Your task to perform on an android device: toggle priority inbox in the gmail app Image 0: 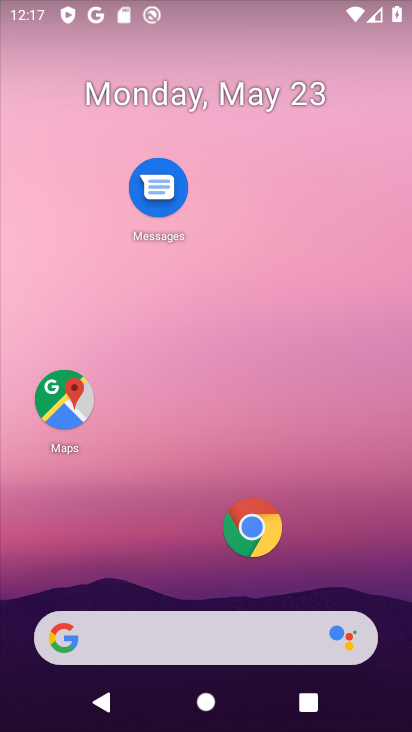
Step 0: drag from (267, 491) to (115, 103)
Your task to perform on an android device: toggle priority inbox in the gmail app Image 1: 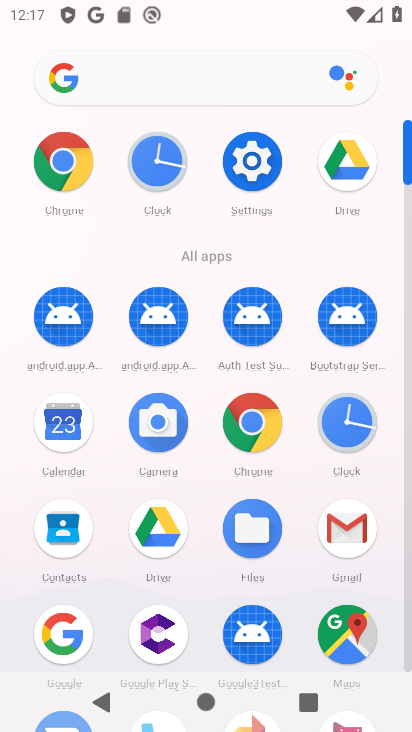
Step 1: click (282, 232)
Your task to perform on an android device: toggle priority inbox in the gmail app Image 2: 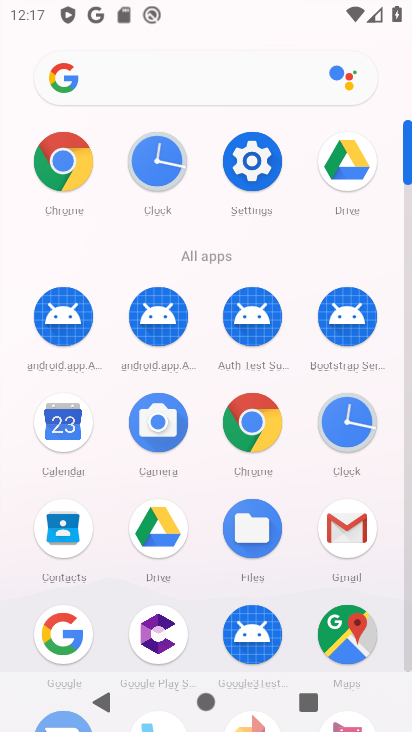
Step 2: click (359, 521)
Your task to perform on an android device: toggle priority inbox in the gmail app Image 3: 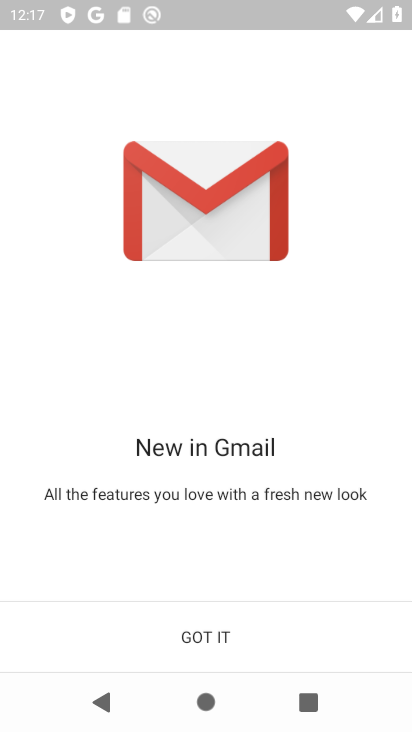
Step 3: click (359, 521)
Your task to perform on an android device: toggle priority inbox in the gmail app Image 4: 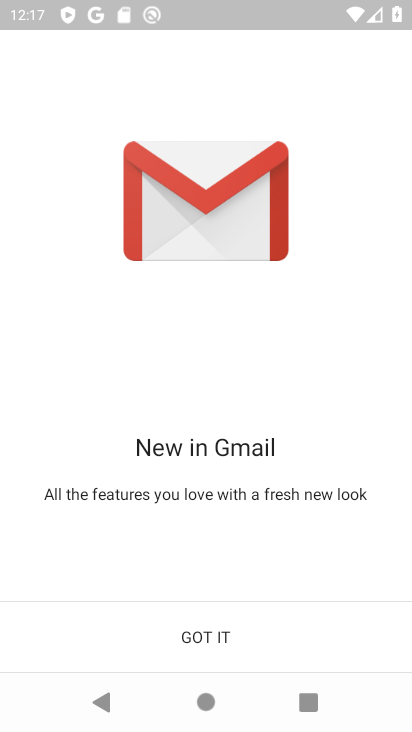
Step 4: click (217, 630)
Your task to perform on an android device: toggle priority inbox in the gmail app Image 5: 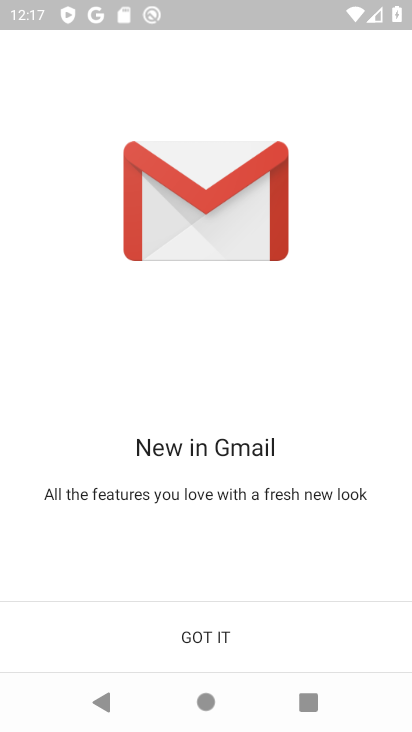
Step 5: click (223, 633)
Your task to perform on an android device: toggle priority inbox in the gmail app Image 6: 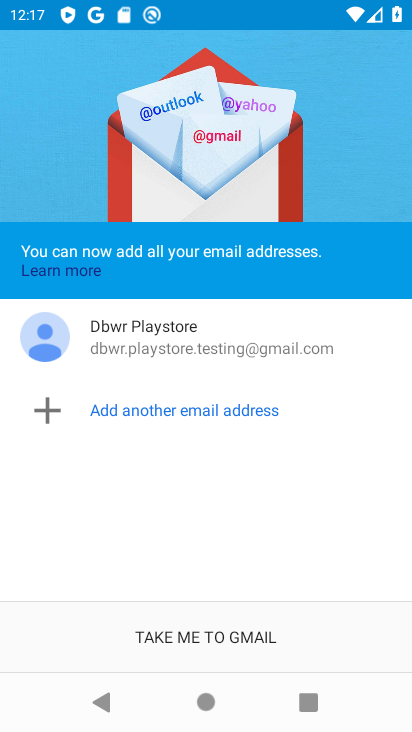
Step 6: click (224, 633)
Your task to perform on an android device: toggle priority inbox in the gmail app Image 7: 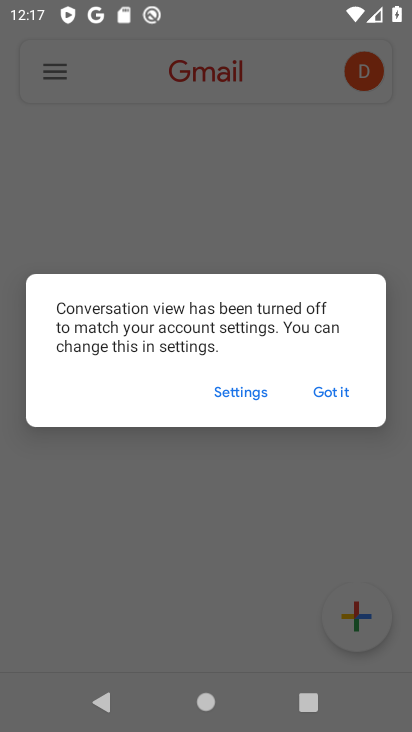
Step 7: click (322, 391)
Your task to perform on an android device: toggle priority inbox in the gmail app Image 8: 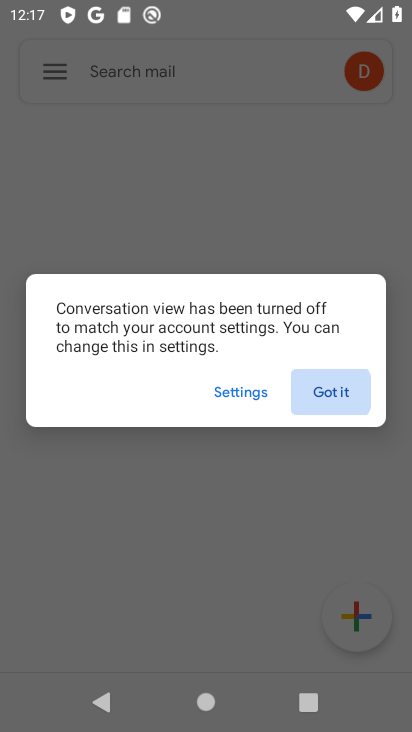
Step 8: click (323, 390)
Your task to perform on an android device: toggle priority inbox in the gmail app Image 9: 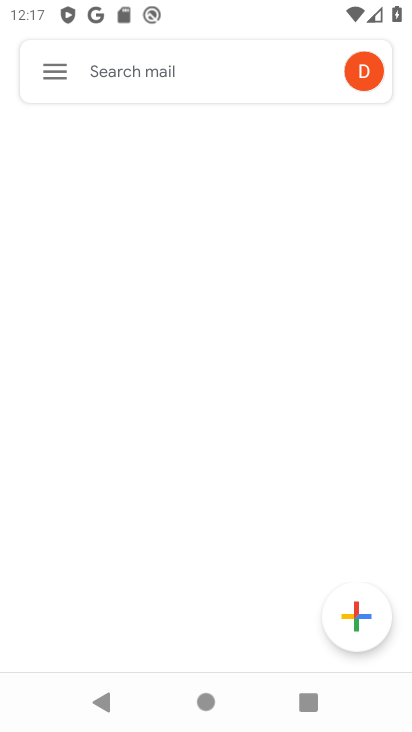
Step 9: click (323, 390)
Your task to perform on an android device: toggle priority inbox in the gmail app Image 10: 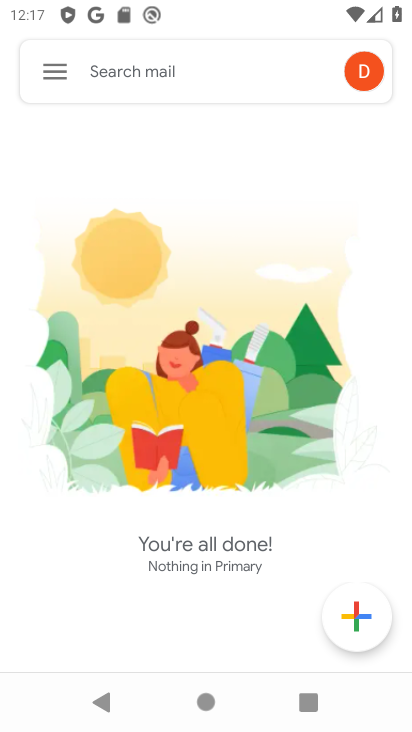
Step 10: click (54, 76)
Your task to perform on an android device: toggle priority inbox in the gmail app Image 11: 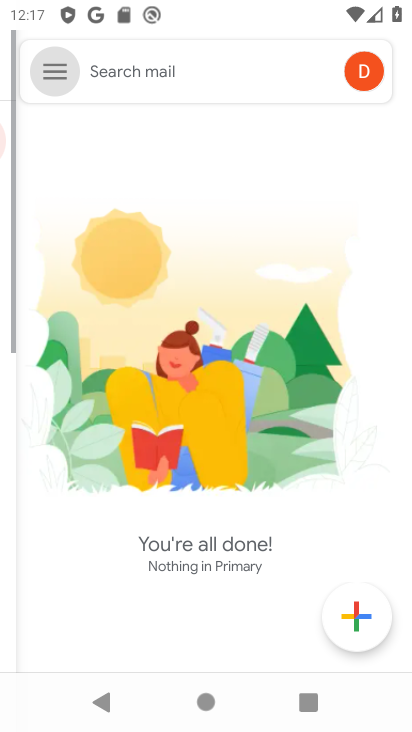
Step 11: drag from (54, 76) to (134, 402)
Your task to perform on an android device: toggle priority inbox in the gmail app Image 12: 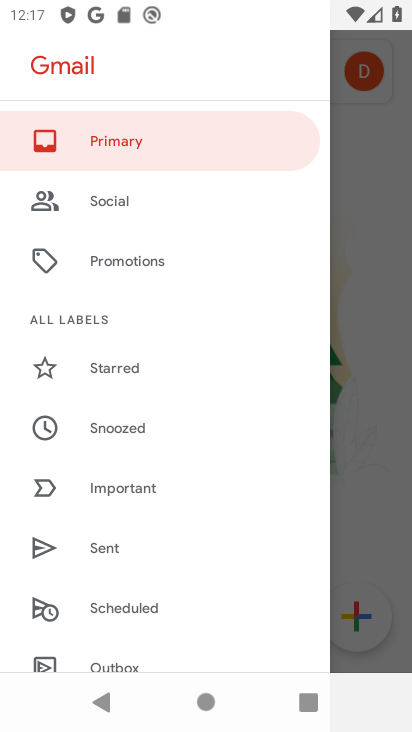
Step 12: drag from (141, 129) to (136, 89)
Your task to perform on an android device: toggle priority inbox in the gmail app Image 13: 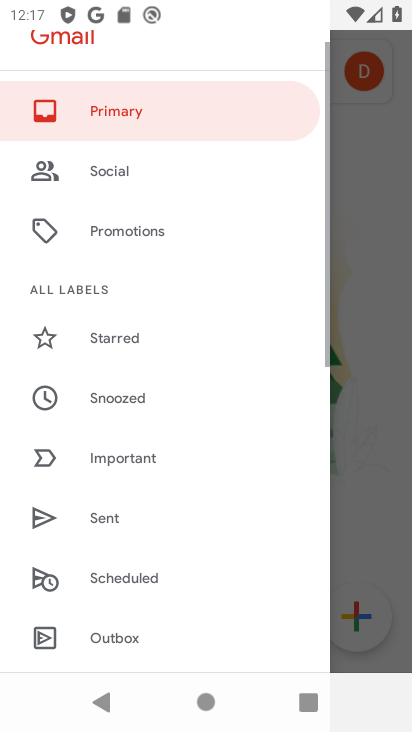
Step 13: drag from (180, 410) to (183, 61)
Your task to perform on an android device: toggle priority inbox in the gmail app Image 14: 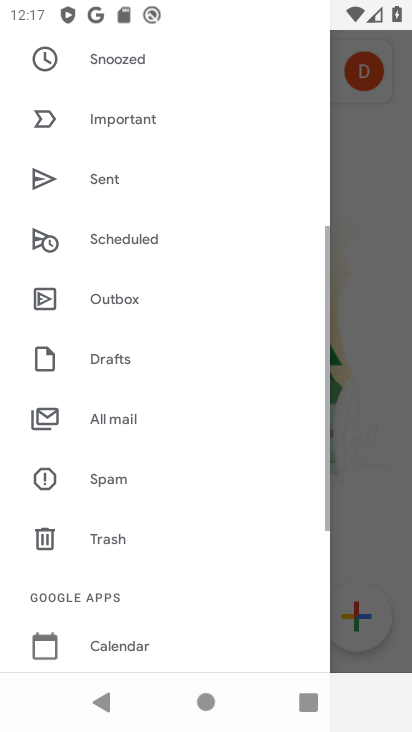
Step 14: drag from (189, 462) to (184, 128)
Your task to perform on an android device: toggle priority inbox in the gmail app Image 15: 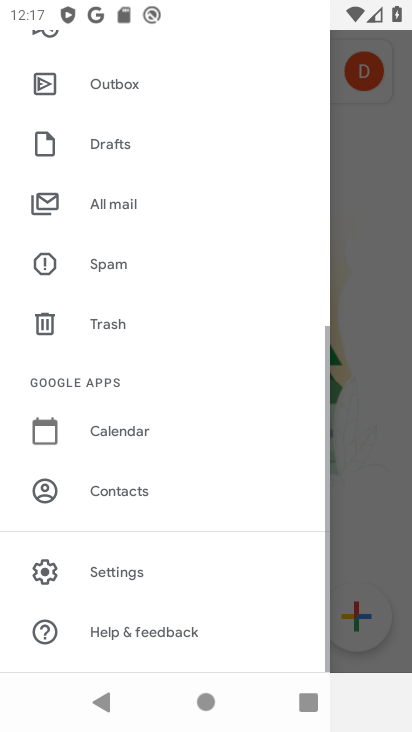
Step 15: click (123, 566)
Your task to perform on an android device: toggle priority inbox in the gmail app Image 16: 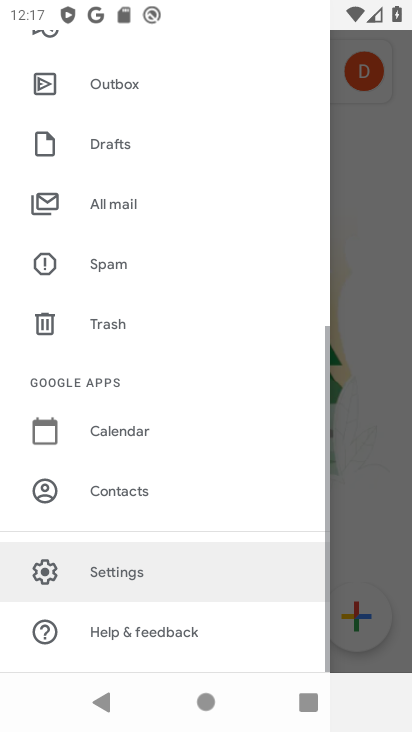
Step 16: click (125, 565)
Your task to perform on an android device: toggle priority inbox in the gmail app Image 17: 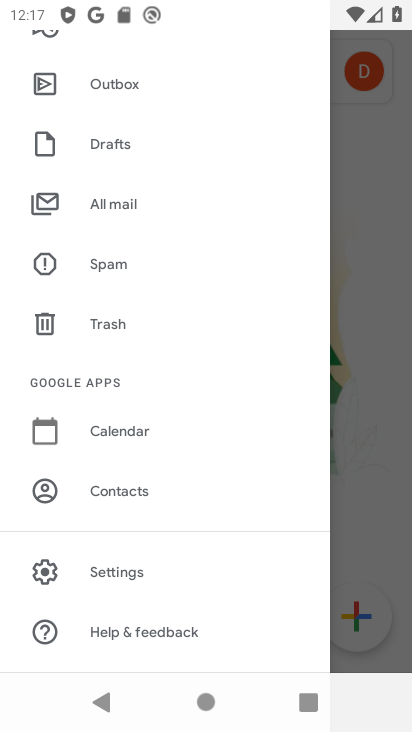
Step 17: click (108, 575)
Your task to perform on an android device: toggle priority inbox in the gmail app Image 18: 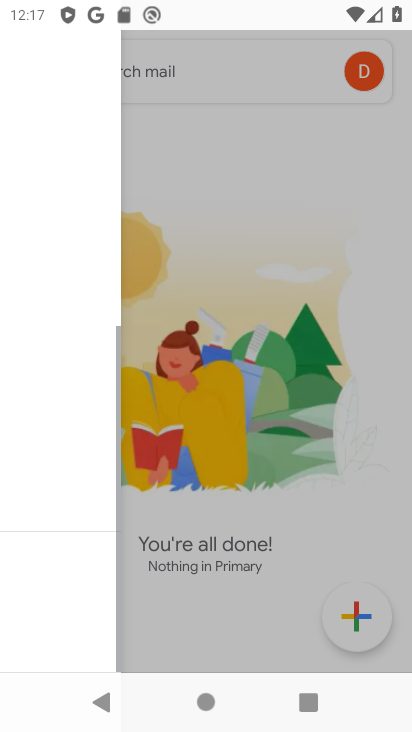
Step 18: click (108, 574)
Your task to perform on an android device: toggle priority inbox in the gmail app Image 19: 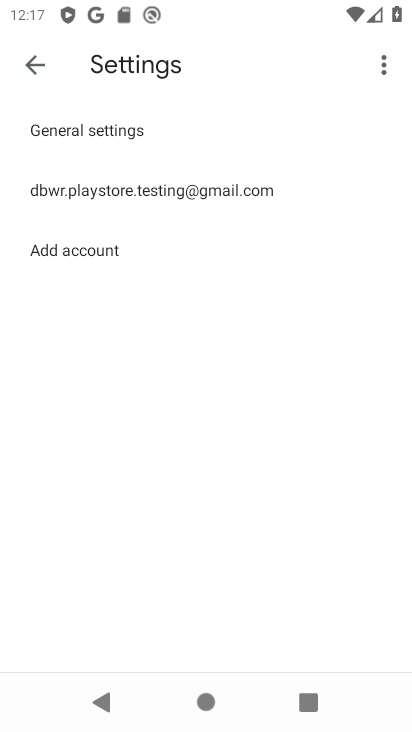
Step 19: click (139, 189)
Your task to perform on an android device: toggle priority inbox in the gmail app Image 20: 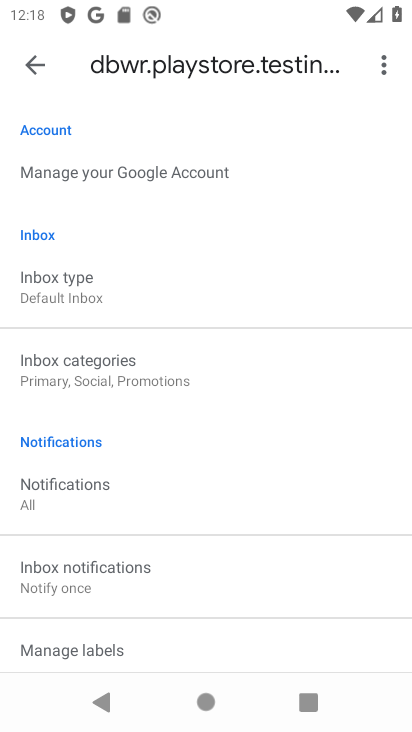
Step 20: drag from (100, 470) to (100, 148)
Your task to perform on an android device: toggle priority inbox in the gmail app Image 21: 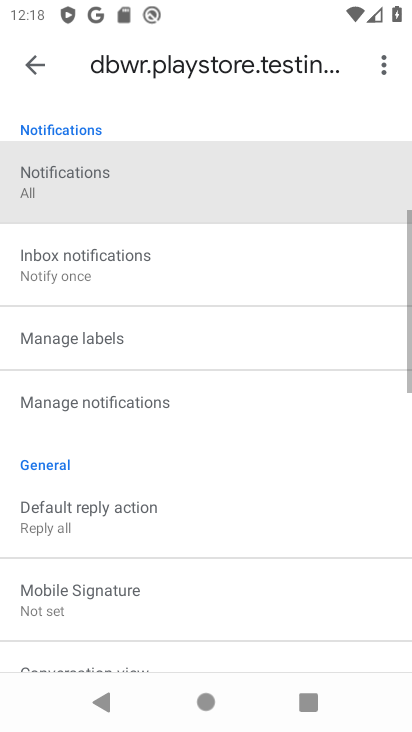
Step 21: drag from (119, 476) to (119, 203)
Your task to perform on an android device: toggle priority inbox in the gmail app Image 22: 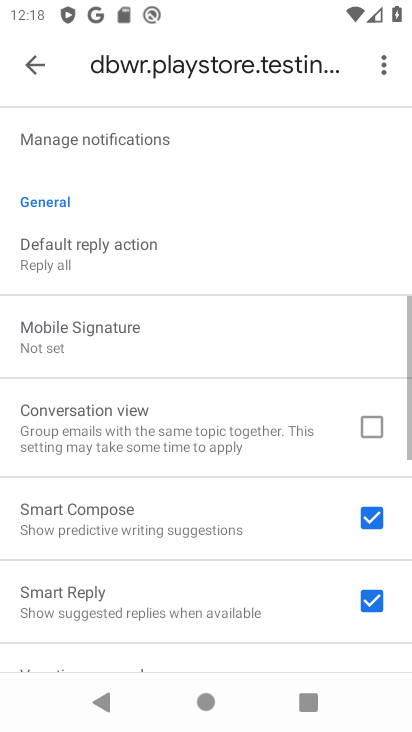
Step 22: drag from (117, 482) to (122, 327)
Your task to perform on an android device: toggle priority inbox in the gmail app Image 23: 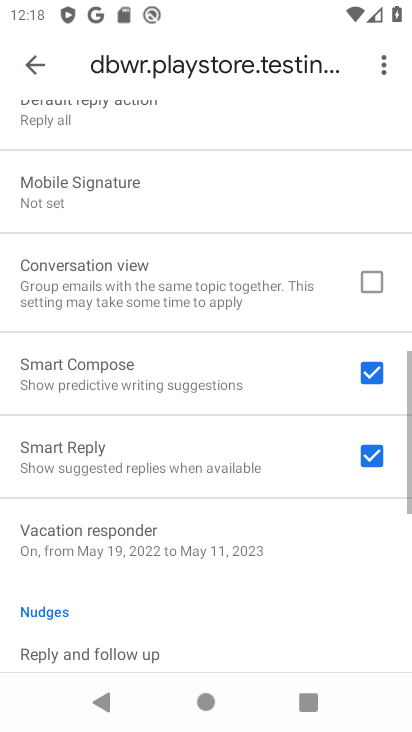
Step 23: drag from (133, 550) to (133, 281)
Your task to perform on an android device: toggle priority inbox in the gmail app Image 24: 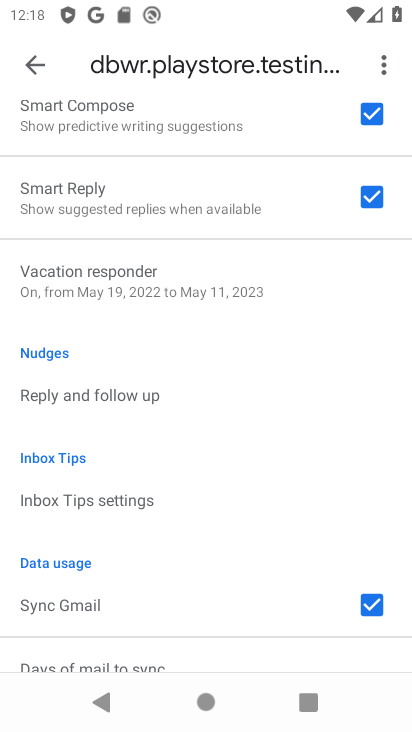
Step 24: drag from (90, 203) to (158, 534)
Your task to perform on an android device: toggle priority inbox in the gmail app Image 25: 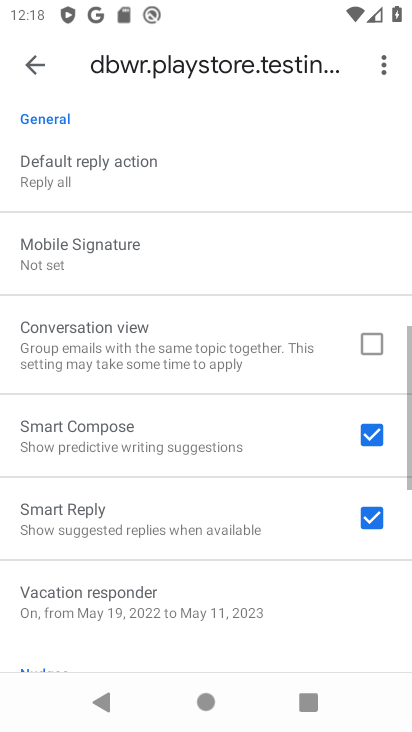
Step 25: drag from (156, 237) to (215, 628)
Your task to perform on an android device: toggle priority inbox in the gmail app Image 26: 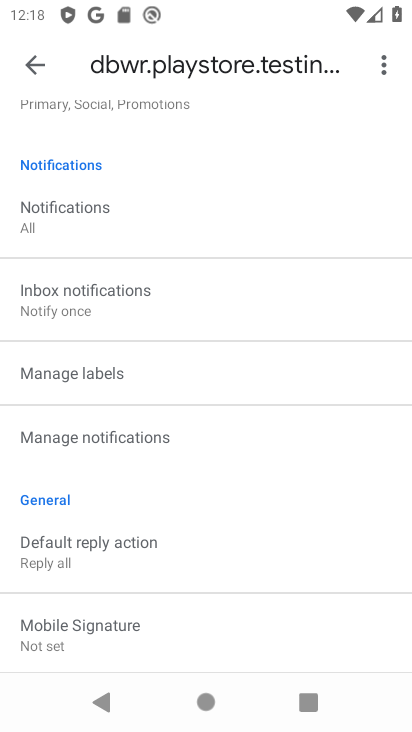
Step 26: drag from (84, 263) to (135, 487)
Your task to perform on an android device: toggle priority inbox in the gmail app Image 27: 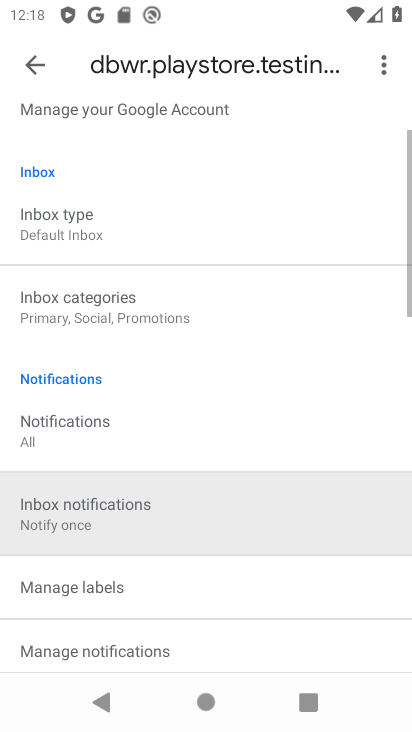
Step 27: drag from (82, 255) to (185, 622)
Your task to perform on an android device: toggle priority inbox in the gmail app Image 28: 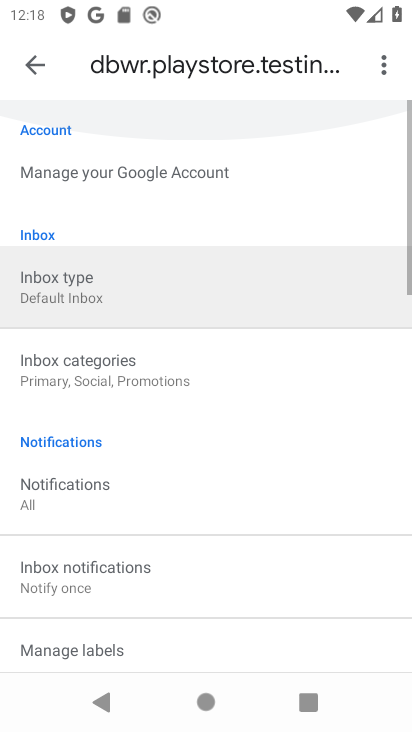
Step 28: drag from (128, 324) to (212, 683)
Your task to perform on an android device: toggle priority inbox in the gmail app Image 29: 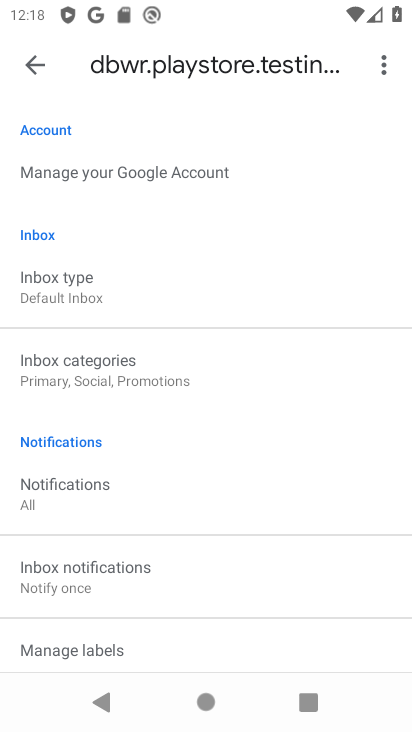
Step 29: click (56, 287)
Your task to perform on an android device: toggle priority inbox in the gmail app Image 30: 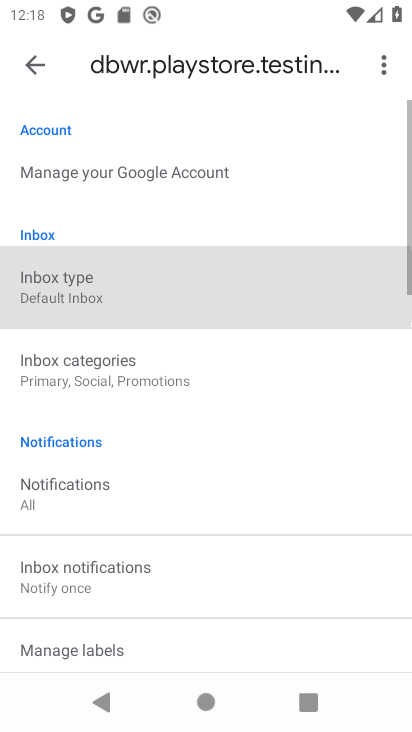
Step 30: click (56, 287)
Your task to perform on an android device: toggle priority inbox in the gmail app Image 31: 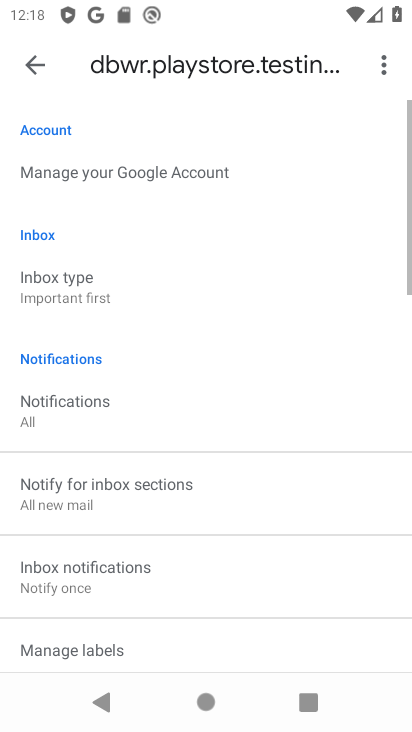
Step 31: click (39, 294)
Your task to perform on an android device: toggle priority inbox in the gmail app Image 32: 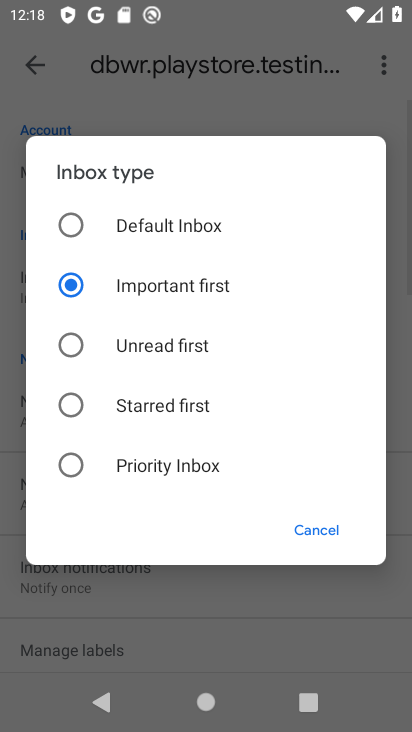
Step 32: click (69, 470)
Your task to perform on an android device: toggle priority inbox in the gmail app Image 33: 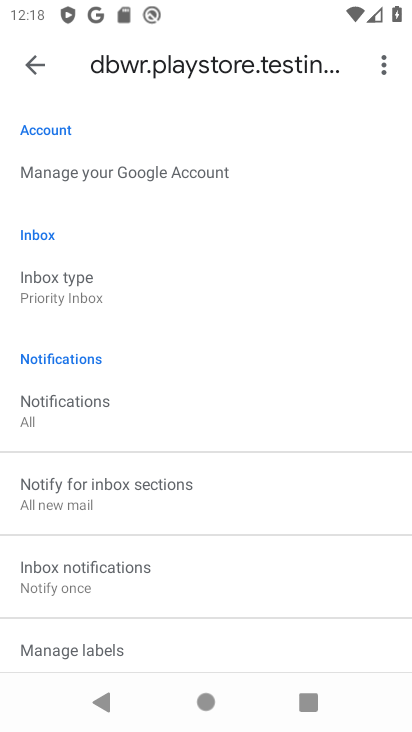
Step 33: task complete